Your task to perform on an android device: Search for the ikea billy bookcase Image 0: 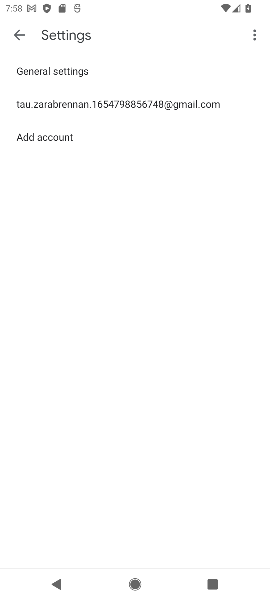
Step 0: press home button
Your task to perform on an android device: Search for the ikea billy bookcase Image 1: 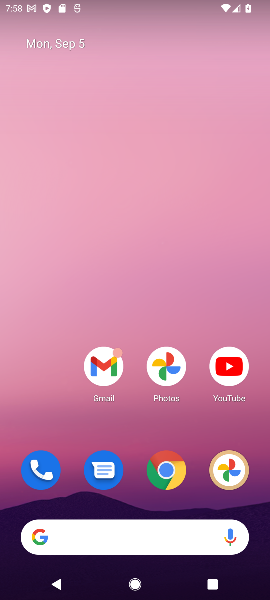
Step 1: drag from (92, 483) to (28, 31)
Your task to perform on an android device: Search for the ikea billy bookcase Image 2: 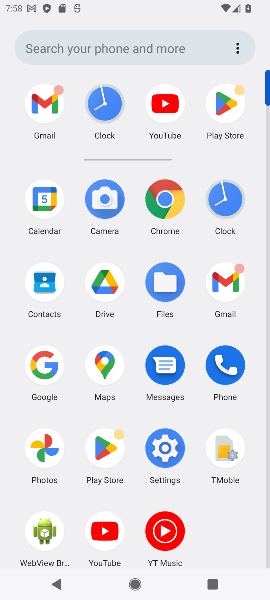
Step 2: click (166, 219)
Your task to perform on an android device: Search for the ikea billy bookcase Image 3: 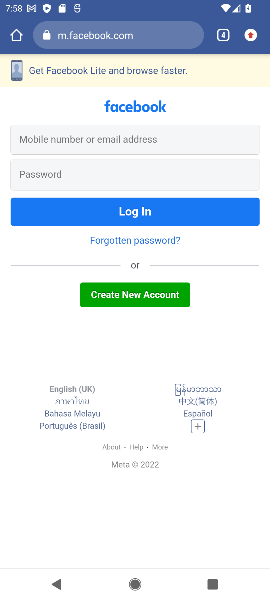
Step 3: click (163, 46)
Your task to perform on an android device: Search for the ikea billy bookcase Image 4: 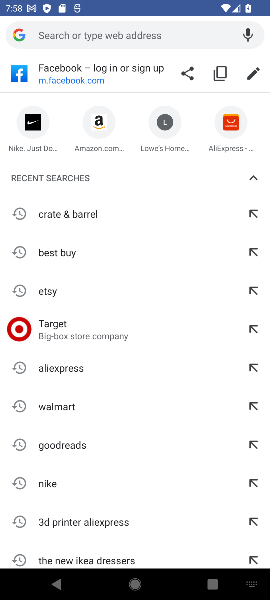
Step 4: type "the ikea billy bookcase"
Your task to perform on an android device: Search for the ikea billy bookcase Image 5: 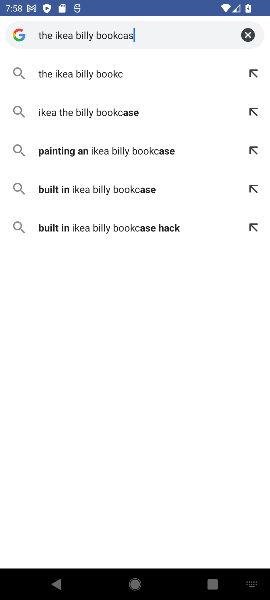
Step 5: type ""
Your task to perform on an android device: Search for the ikea billy bookcase Image 6: 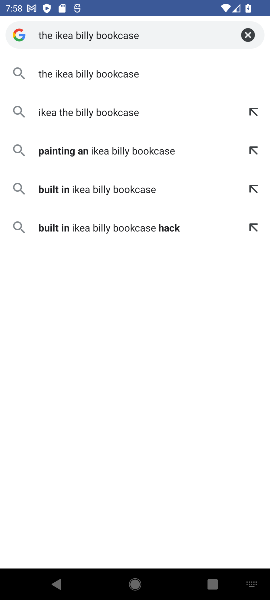
Step 6: click (61, 70)
Your task to perform on an android device: Search for the ikea billy bookcase Image 7: 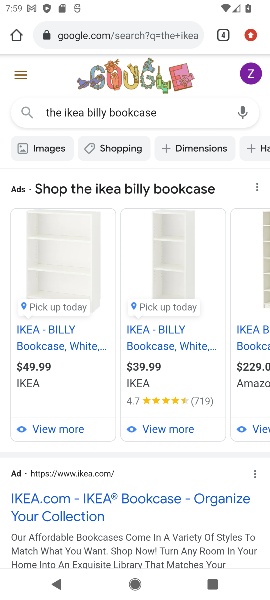
Step 7: task complete